Your task to perform on an android device: Set the phone to "Do not disturb". Image 0: 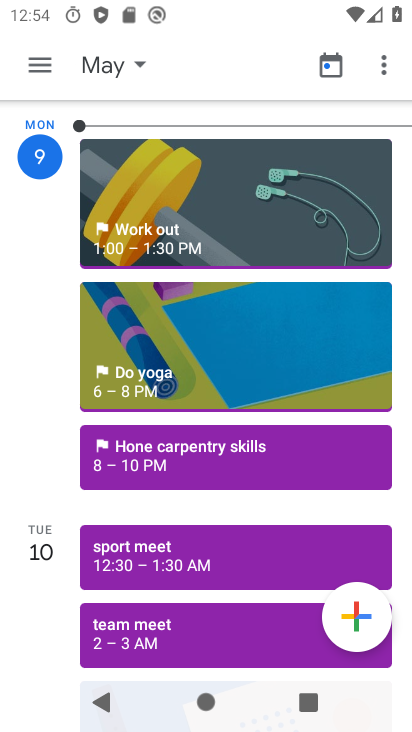
Step 0: press home button
Your task to perform on an android device: Set the phone to "Do not disturb". Image 1: 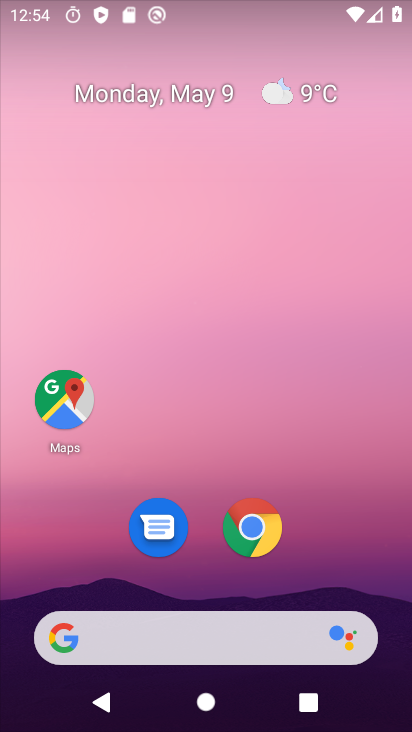
Step 1: drag from (147, 4) to (108, 504)
Your task to perform on an android device: Set the phone to "Do not disturb". Image 2: 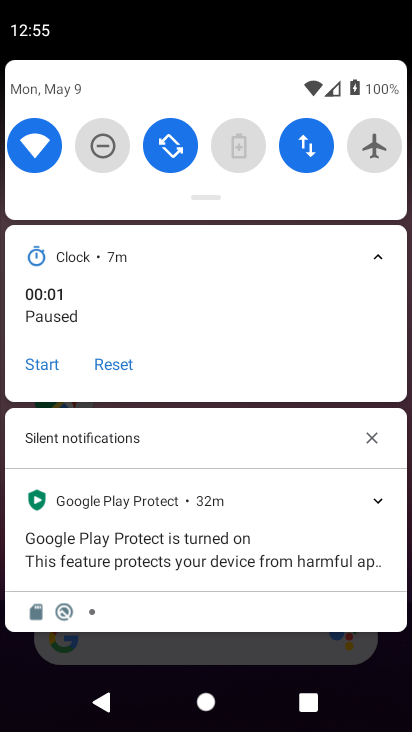
Step 2: click (97, 147)
Your task to perform on an android device: Set the phone to "Do not disturb". Image 3: 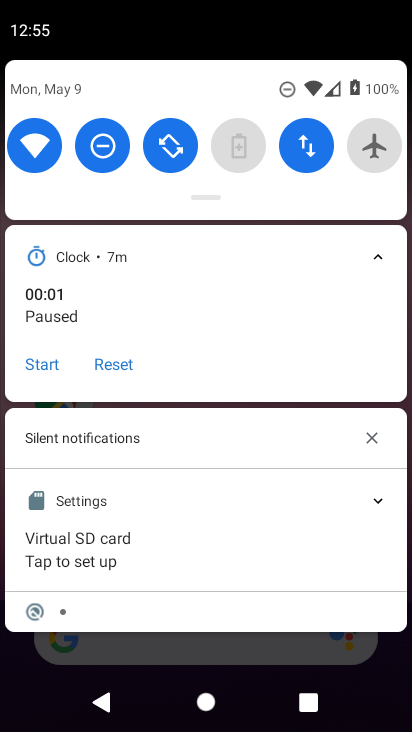
Step 3: task complete